Your task to perform on an android device: Open internet settings Image 0: 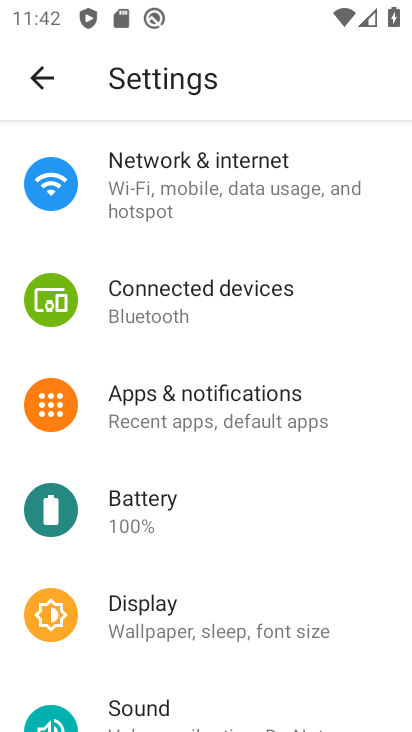
Step 0: click (342, 195)
Your task to perform on an android device: Open internet settings Image 1: 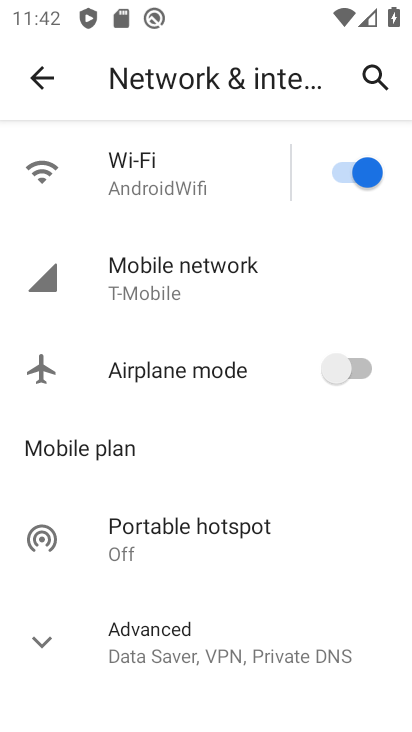
Step 1: click (202, 277)
Your task to perform on an android device: Open internet settings Image 2: 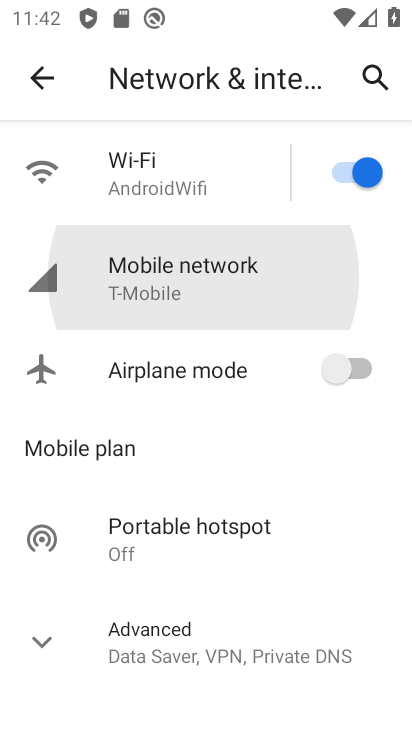
Step 2: click (202, 277)
Your task to perform on an android device: Open internet settings Image 3: 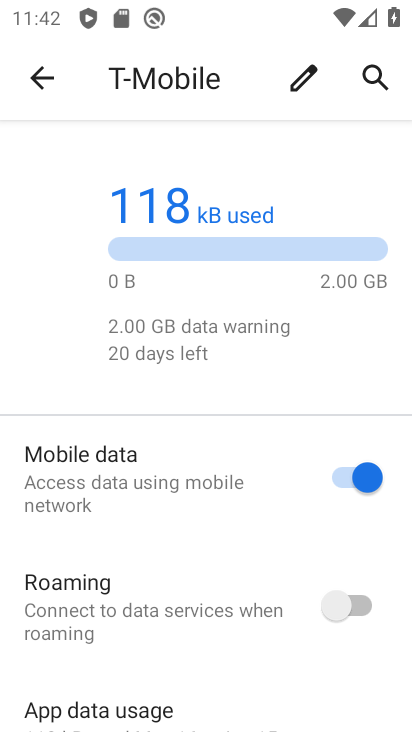
Step 3: task complete